Your task to perform on an android device: toggle airplane mode Image 0: 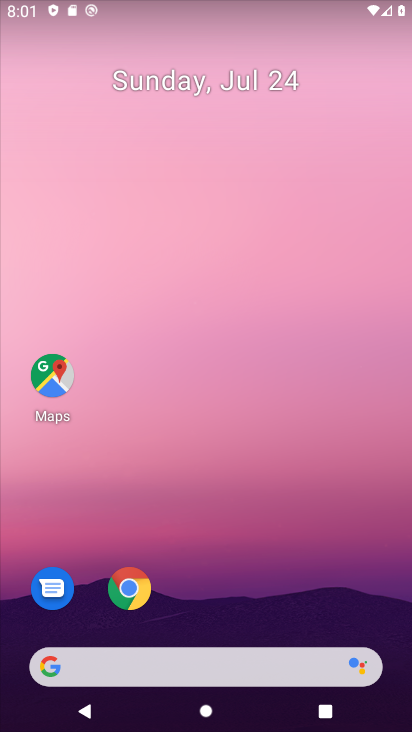
Step 0: drag from (244, 683) to (245, 77)
Your task to perform on an android device: toggle airplane mode Image 1: 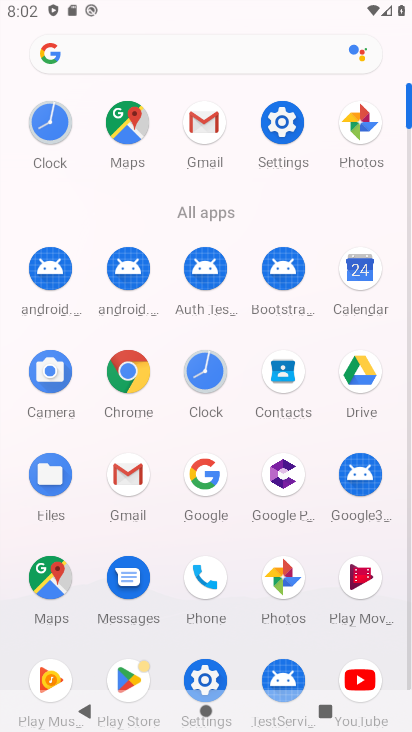
Step 1: click (294, 115)
Your task to perform on an android device: toggle airplane mode Image 2: 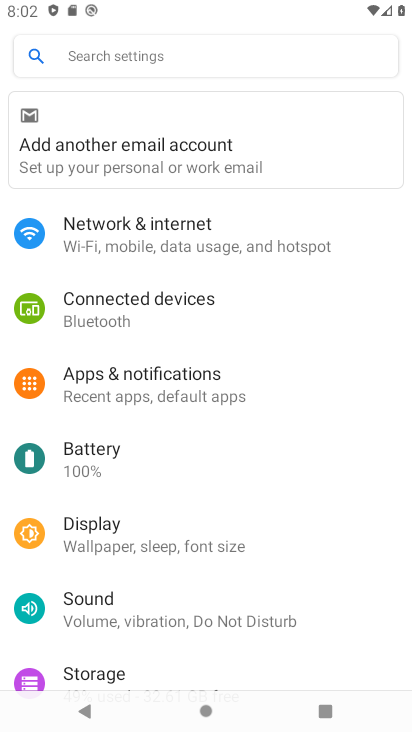
Step 2: click (235, 242)
Your task to perform on an android device: toggle airplane mode Image 3: 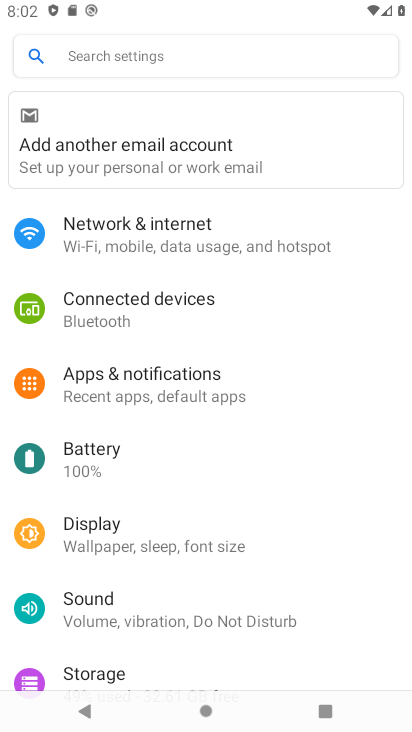
Step 3: click (235, 242)
Your task to perform on an android device: toggle airplane mode Image 4: 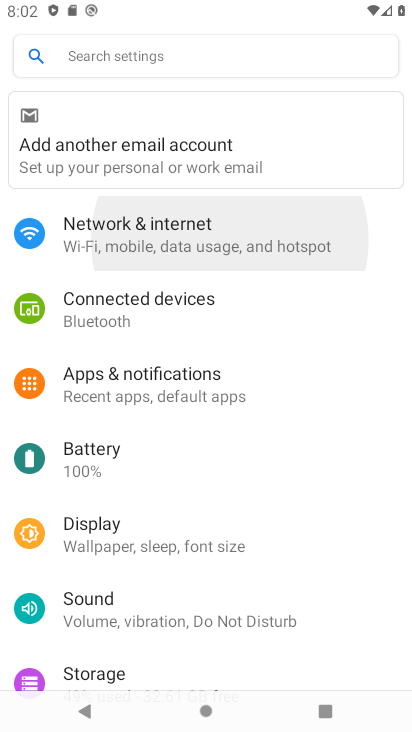
Step 4: click (235, 242)
Your task to perform on an android device: toggle airplane mode Image 5: 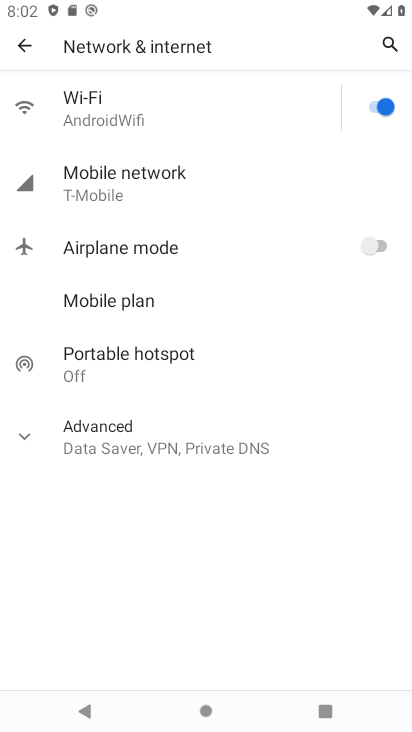
Step 5: click (376, 242)
Your task to perform on an android device: toggle airplane mode Image 6: 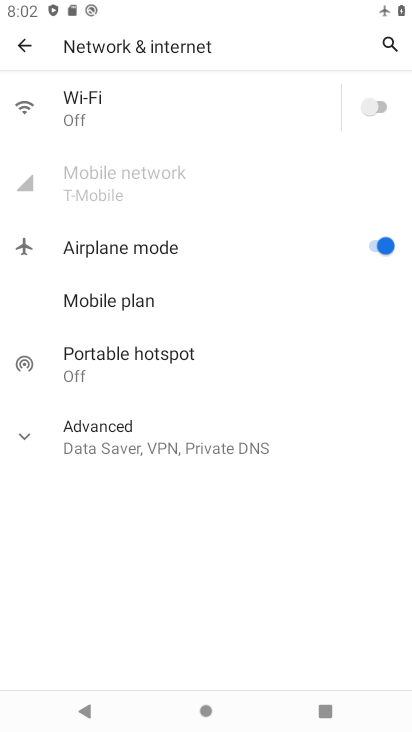
Step 6: task complete